Your task to perform on an android device: turn off javascript in the chrome app Image 0: 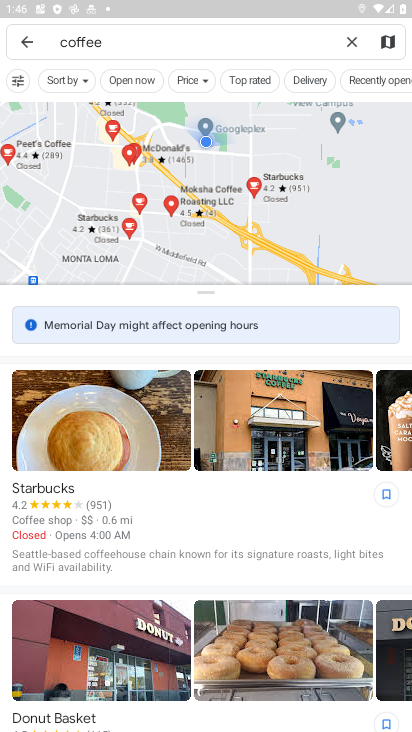
Step 0: press home button
Your task to perform on an android device: turn off javascript in the chrome app Image 1: 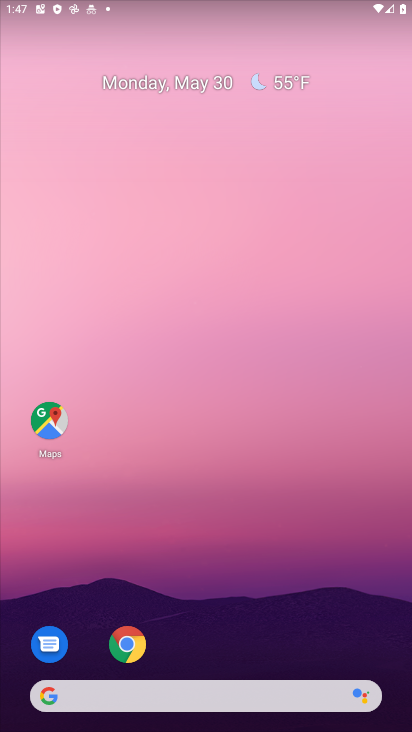
Step 1: drag from (312, 621) to (206, 276)
Your task to perform on an android device: turn off javascript in the chrome app Image 2: 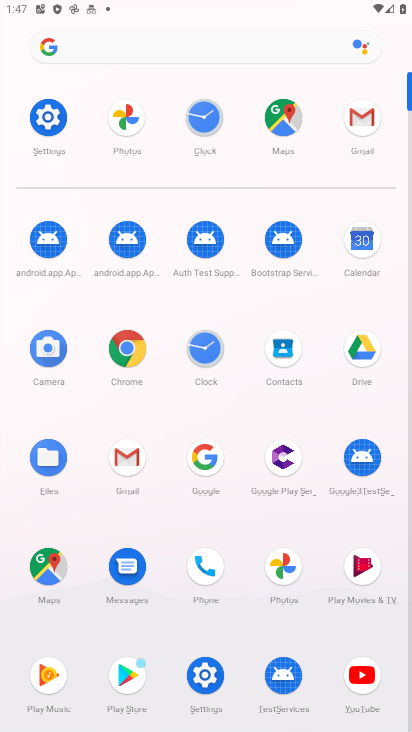
Step 2: click (27, 144)
Your task to perform on an android device: turn off javascript in the chrome app Image 3: 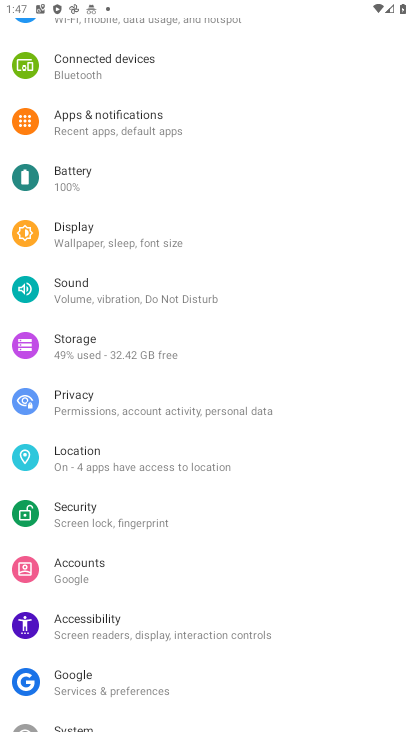
Step 3: task complete